Your task to perform on an android device: Open Android settings Image 0: 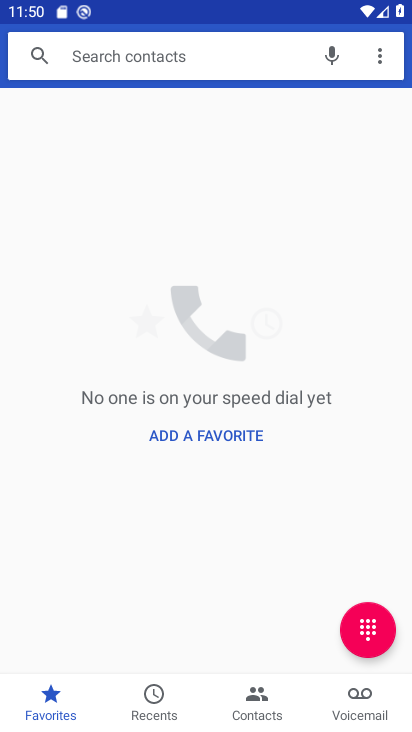
Step 0: drag from (221, 612) to (341, 145)
Your task to perform on an android device: Open Android settings Image 1: 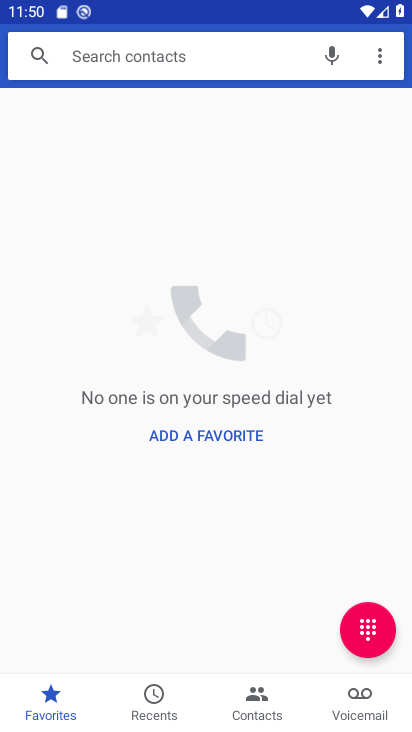
Step 1: press home button
Your task to perform on an android device: Open Android settings Image 2: 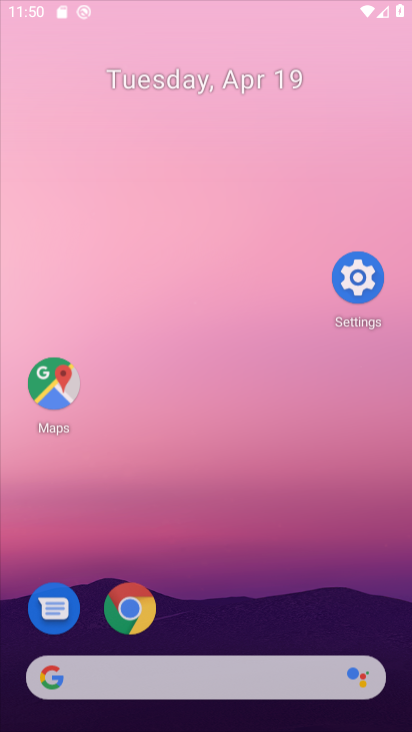
Step 2: drag from (236, 604) to (389, 146)
Your task to perform on an android device: Open Android settings Image 3: 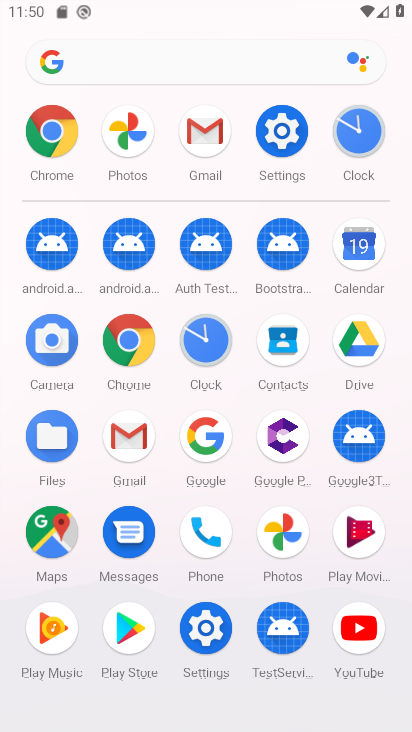
Step 3: click (284, 119)
Your task to perform on an android device: Open Android settings Image 4: 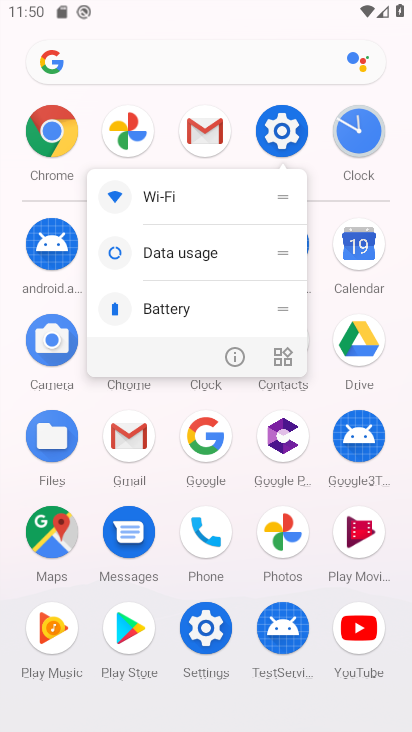
Step 4: click (237, 366)
Your task to perform on an android device: Open Android settings Image 5: 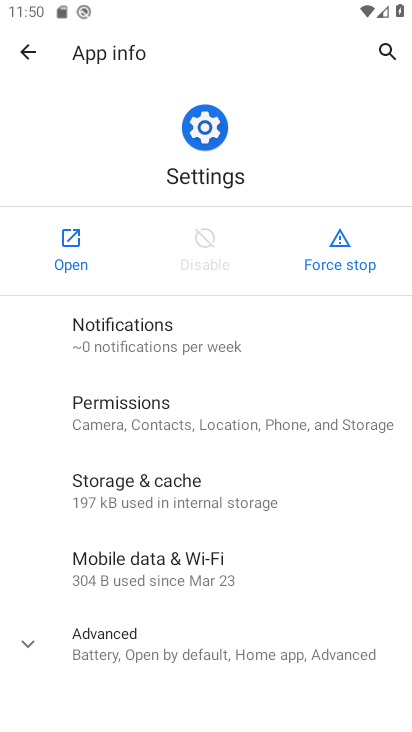
Step 5: click (59, 245)
Your task to perform on an android device: Open Android settings Image 6: 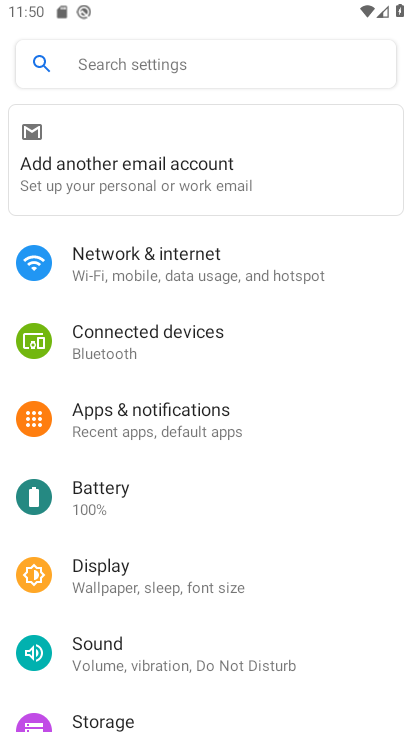
Step 6: drag from (211, 621) to (277, 0)
Your task to perform on an android device: Open Android settings Image 7: 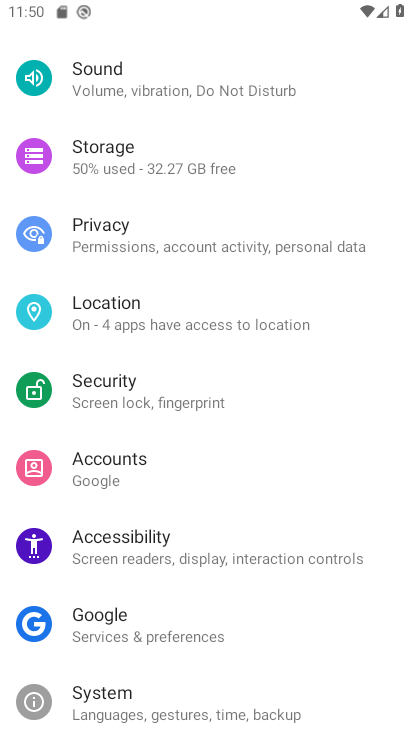
Step 7: drag from (172, 568) to (285, 0)
Your task to perform on an android device: Open Android settings Image 8: 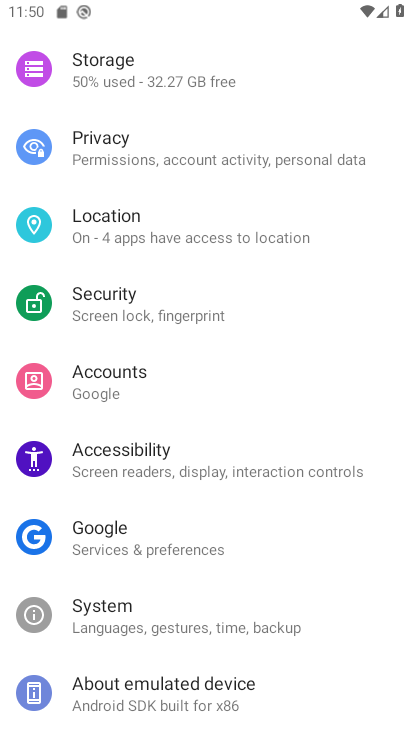
Step 8: click (124, 685)
Your task to perform on an android device: Open Android settings Image 9: 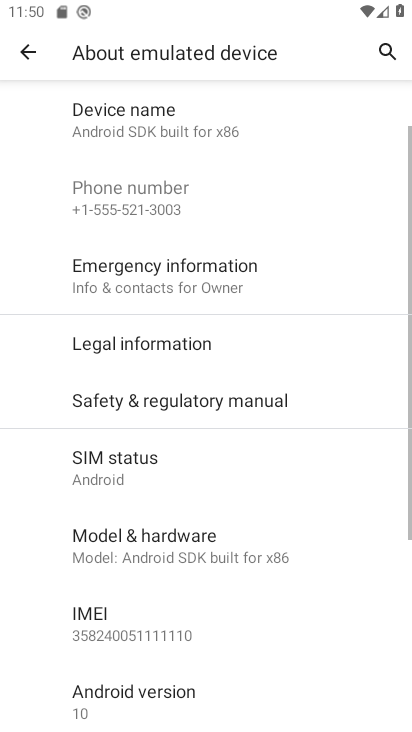
Step 9: drag from (169, 601) to (293, 89)
Your task to perform on an android device: Open Android settings Image 10: 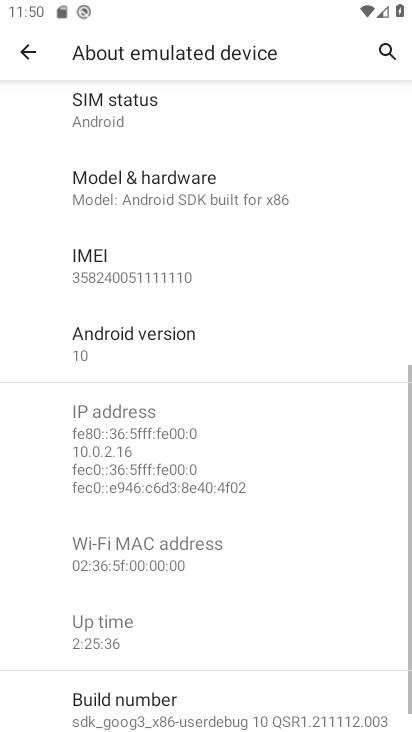
Step 10: click (123, 359)
Your task to perform on an android device: Open Android settings Image 11: 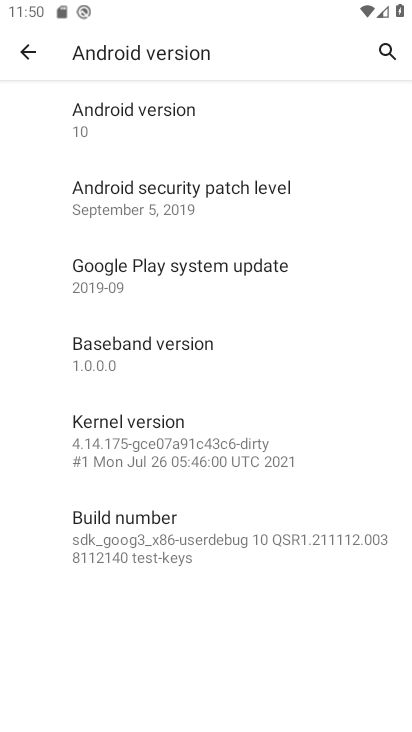
Step 11: task complete